Your task to perform on an android device: uninstall "DoorDash - Food Delivery" Image 0: 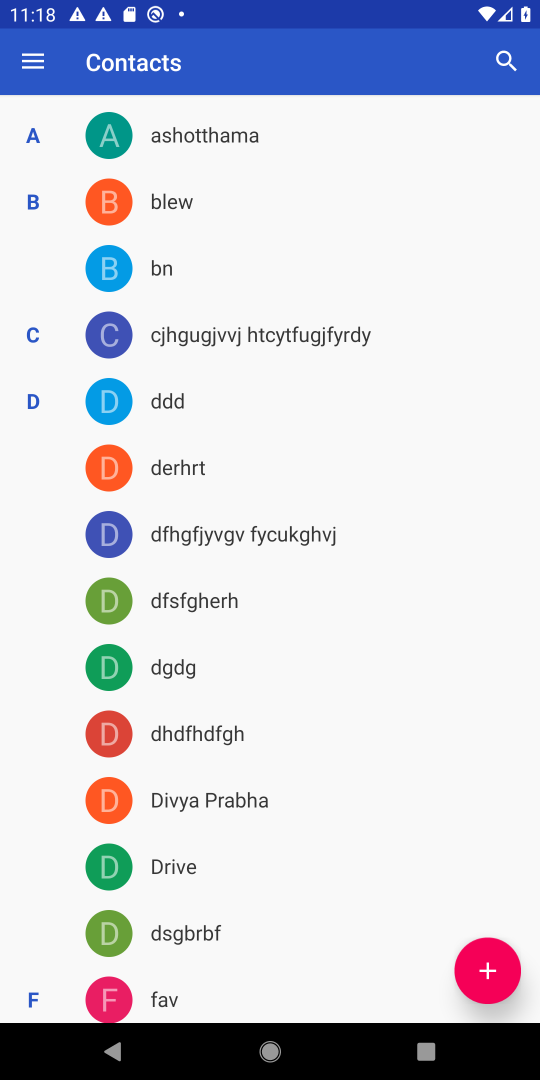
Step 0: press home button
Your task to perform on an android device: uninstall "DoorDash - Food Delivery" Image 1: 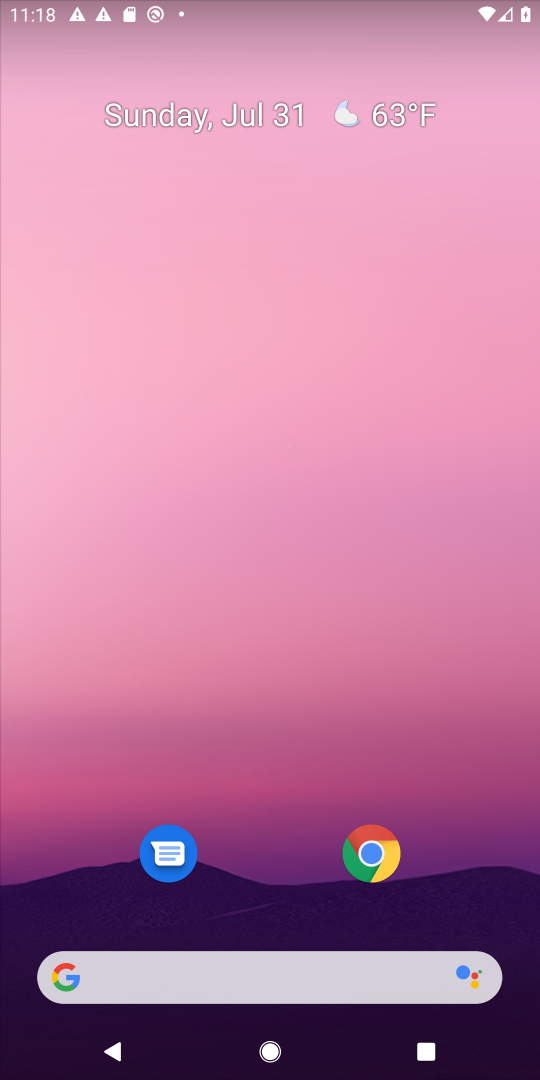
Step 1: drag from (310, 1017) to (310, 2)
Your task to perform on an android device: uninstall "DoorDash - Food Delivery" Image 2: 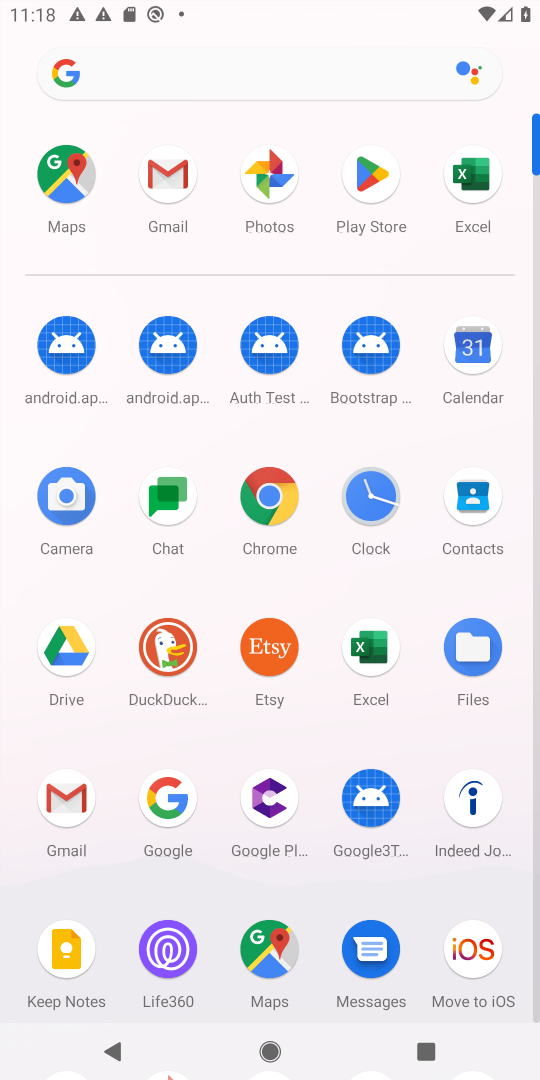
Step 2: click (367, 176)
Your task to perform on an android device: uninstall "DoorDash - Food Delivery" Image 3: 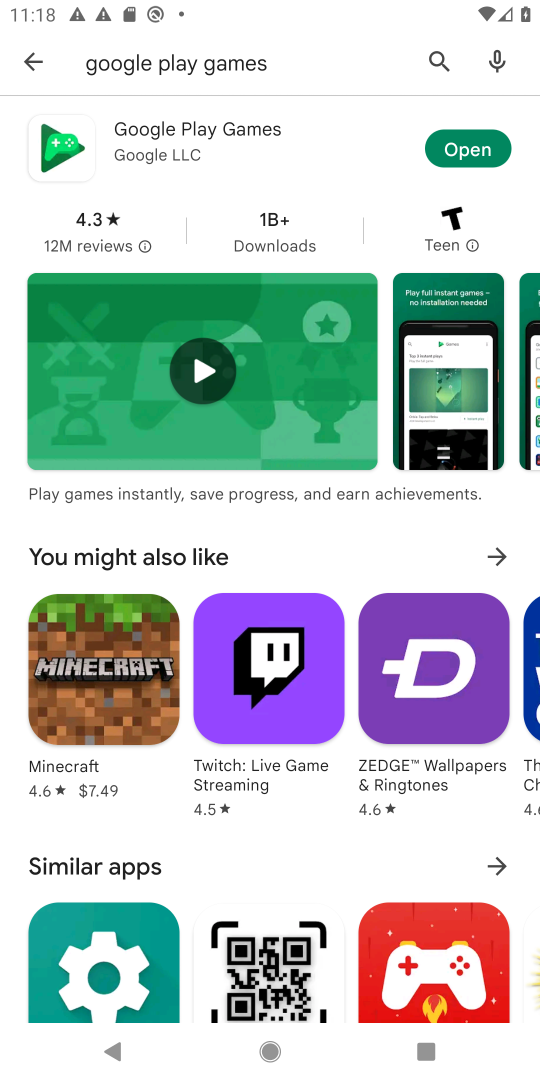
Step 3: click (436, 51)
Your task to perform on an android device: uninstall "DoorDash - Food Delivery" Image 4: 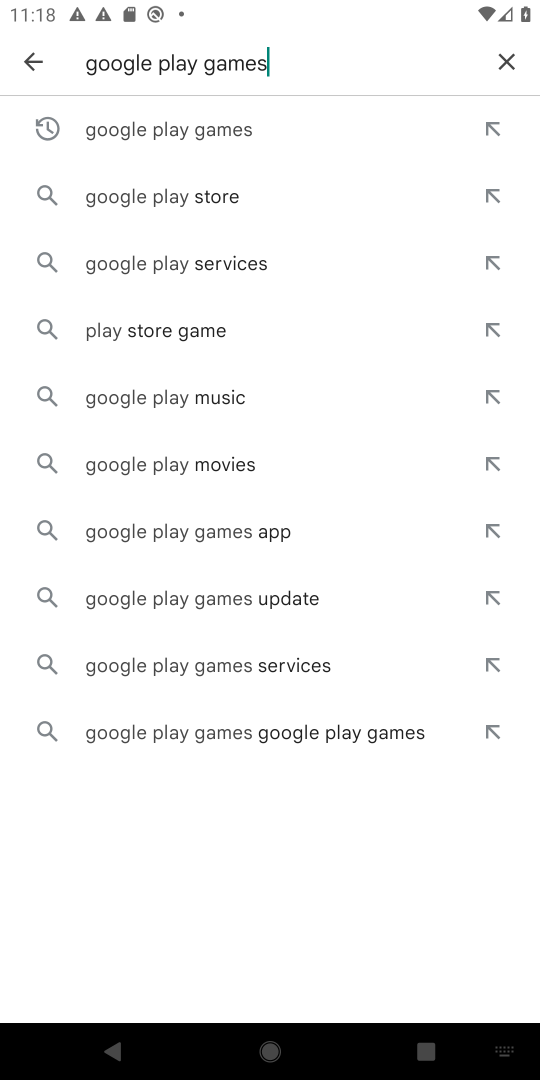
Step 4: click (501, 60)
Your task to perform on an android device: uninstall "DoorDash - Food Delivery" Image 5: 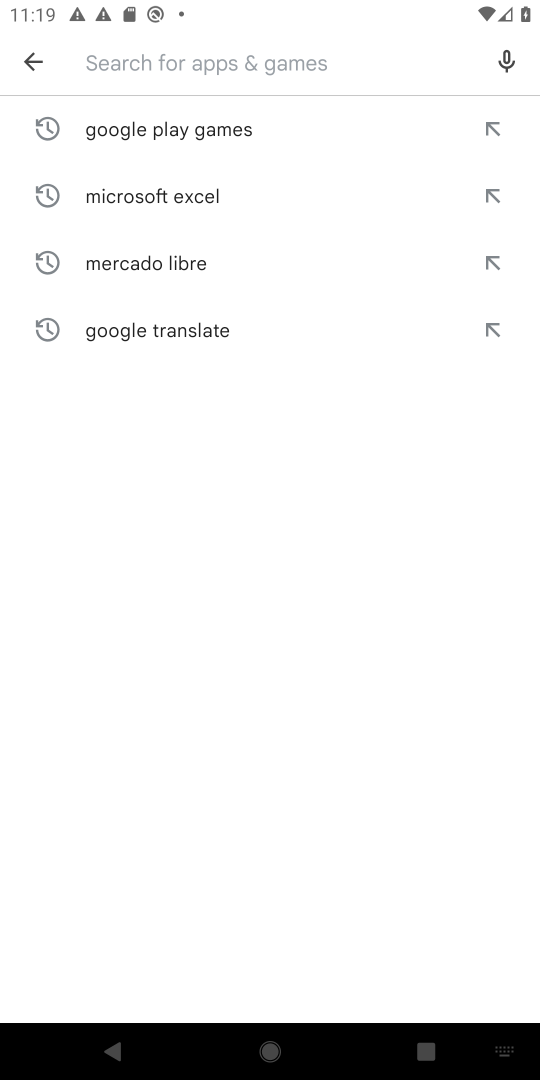
Step 5: type "DoorDash - Food Delivery"
Your task to perform on an android device: uninstall "DoorDash - Food Delivery" Image 6: 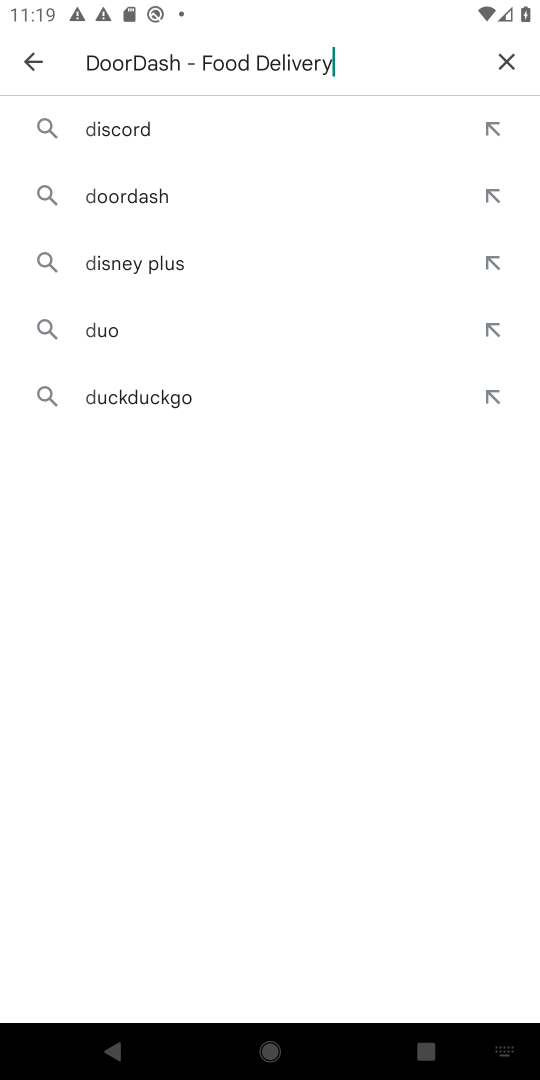
Step 6: type ""
Your task to perform on an android device: uninstall "DoorDash - Food Delivery" Image 7: 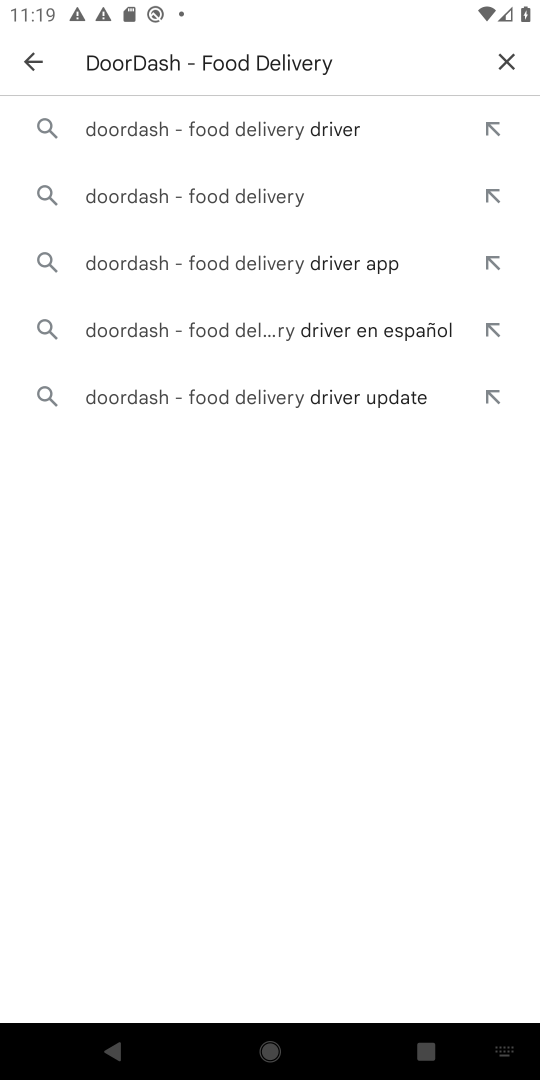
Step 7: click (286, 129)
Your task to perform on an android device: uninstall "DoorDash - Food Delivery" Image 8: 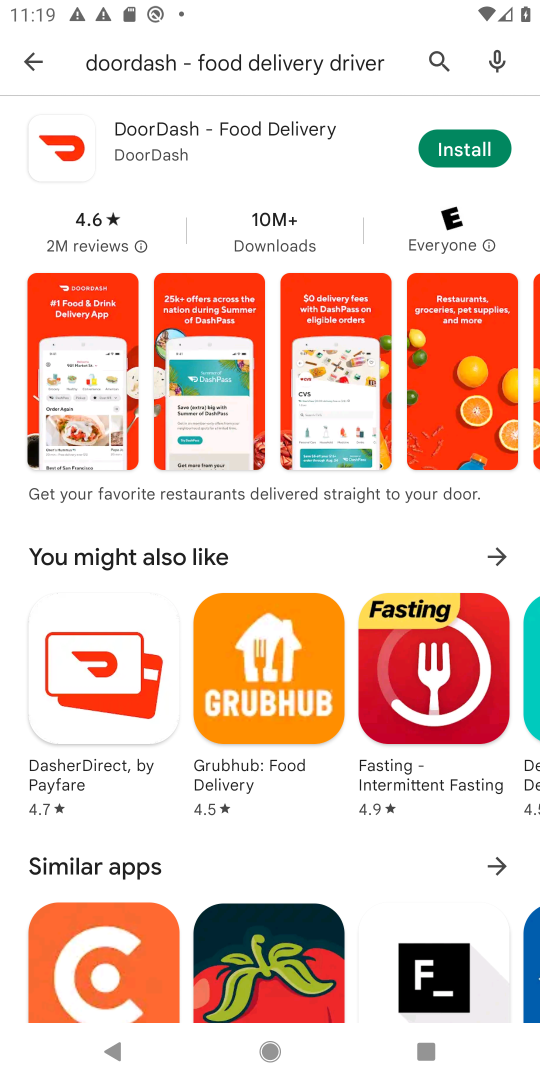
Step 8: task complete